Your task to perform on an android device: Open calendar and show me the second week of next month Image 0: 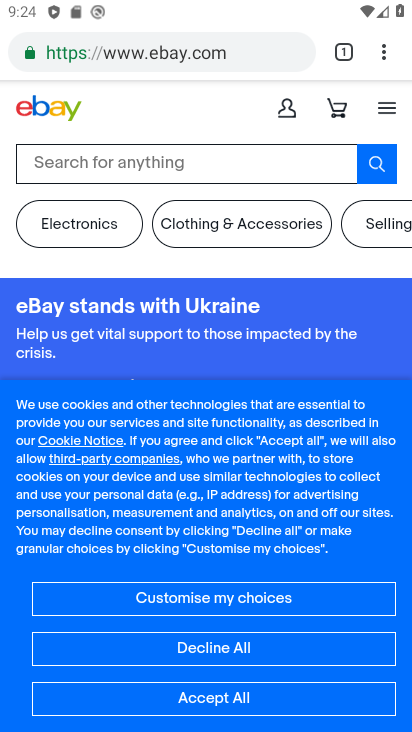
Step 0: press home button
Your task to perform on an android device: Open calendar and show me the second week of next month Image 1: 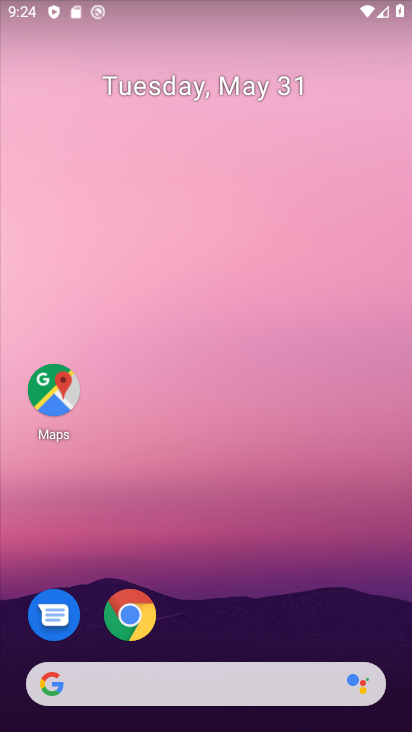
Step 1: drag from (270, 532) to (239, 0)
Your task to perform on an android device: Open calendar and show me the second week of next month Image 2: 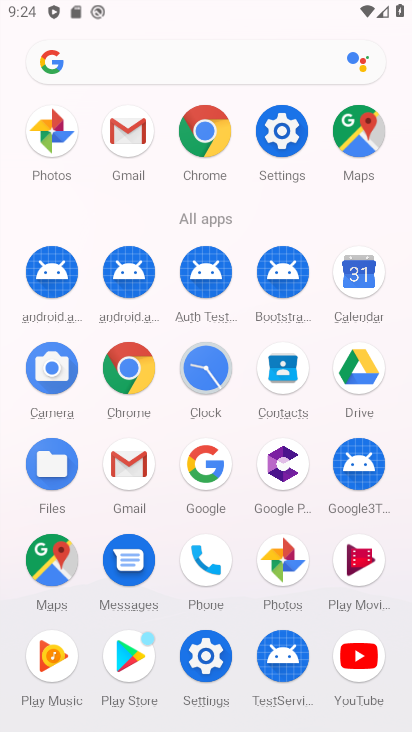
Step 2: click (372, 279)
Your task to perform on an android device: Open calendar and show me the second week of next month Image 3: 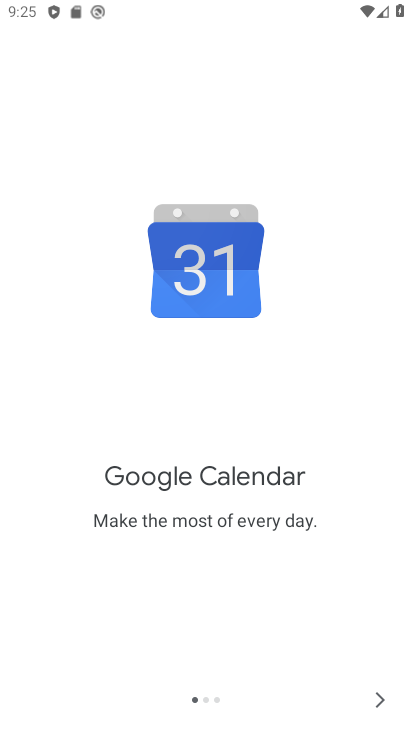
Step 3: click (377, 696)
Your task to perform on an android device: Open calendar and show me the second week of next month Image 4: 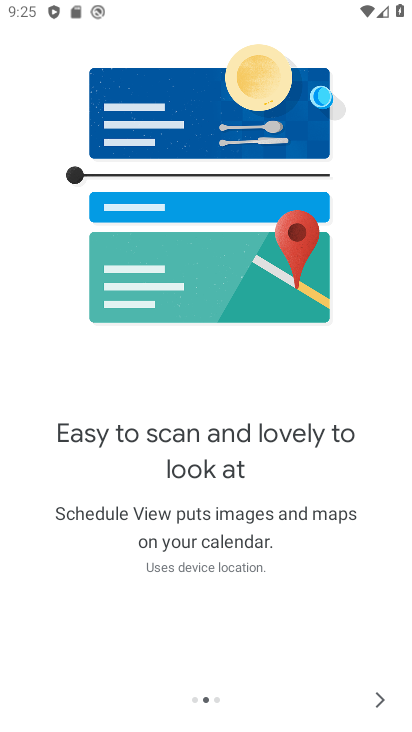
Step 4: click (377, 696)
Your task to perform on an android device: Open calendar and show me the second week of next month Image 5: 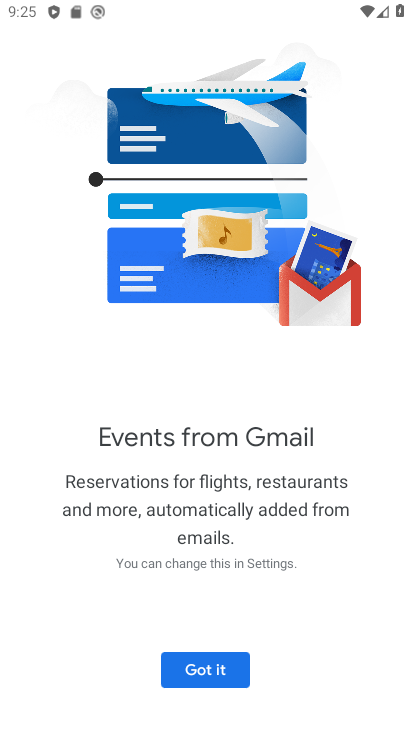
Step 5: click (186, 676)
Your task to perform on an android device: Open calendar and show me the second week of next month Image 6: 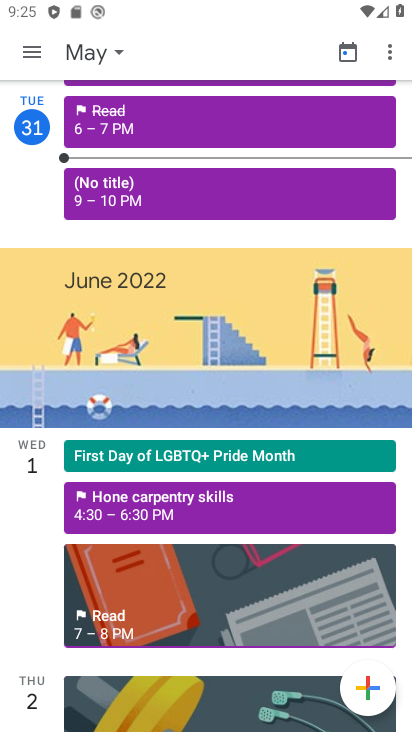
Step 6: click (89, 47)
Your task to perform on an android device: Open calendar and show me the second week of next month Image 7: 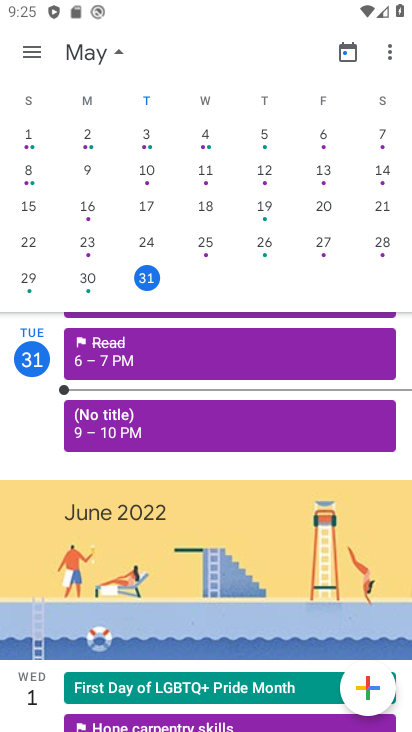
Step 7: drag from (358, 283) to (24, 293)
Your task to perform on an android device: Open calendar and show me the second week of next month Image 8: 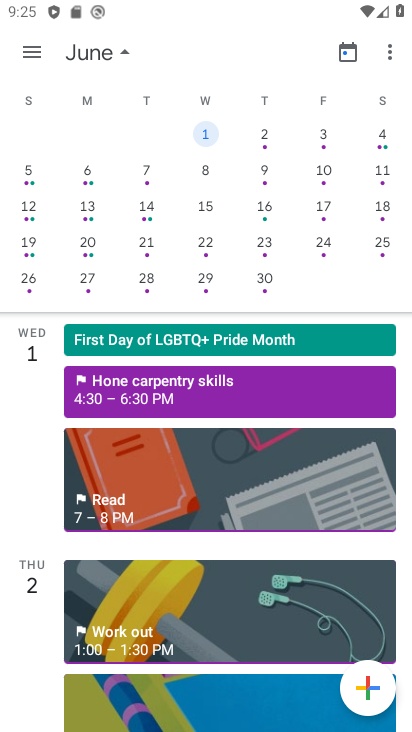
Step 8: click (39, 178)
Your task to perform on an android device: Open calendar and show me the second week of next month Image 9: 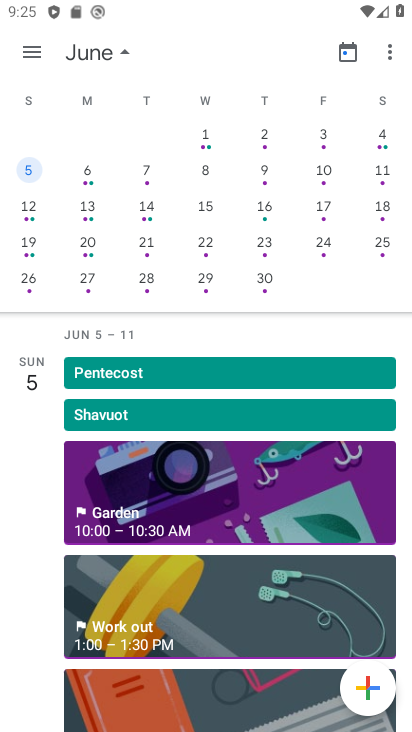
Step 9: task complete